Your task to perform on an android device: Set the phone to "Do not disturb". Image 0: 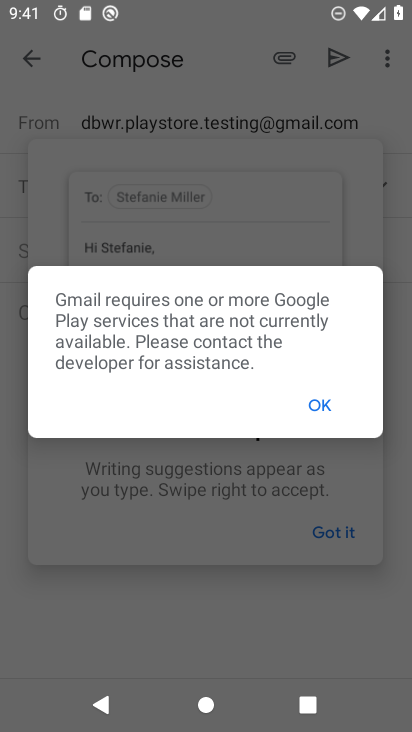
Step 0: press home button
Your task to perform on an android device: Set the phone to "Do not disturb". Image 1: 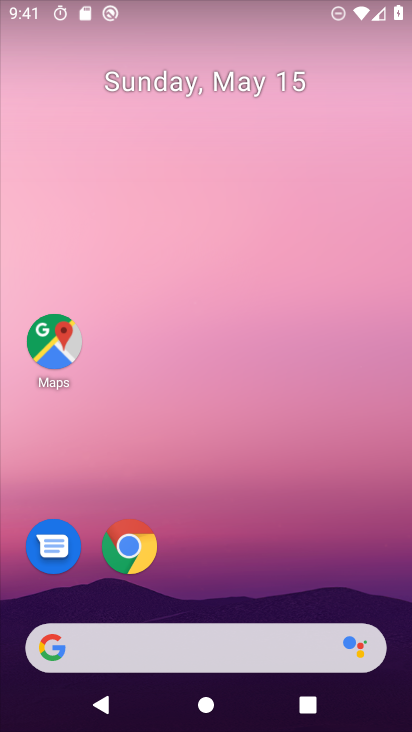
Step 1: drag from (250, 548) to (261, 52)
Your task to perform on an android device: Set the phone to "Do not disturb". Image 2: 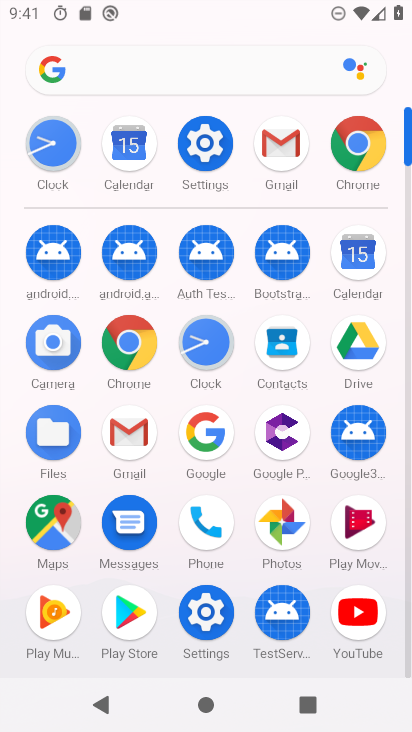
Step 2: click (207, 135)
Your task to perform on an android device: Set the phone to "Do not disturb". Image 3: 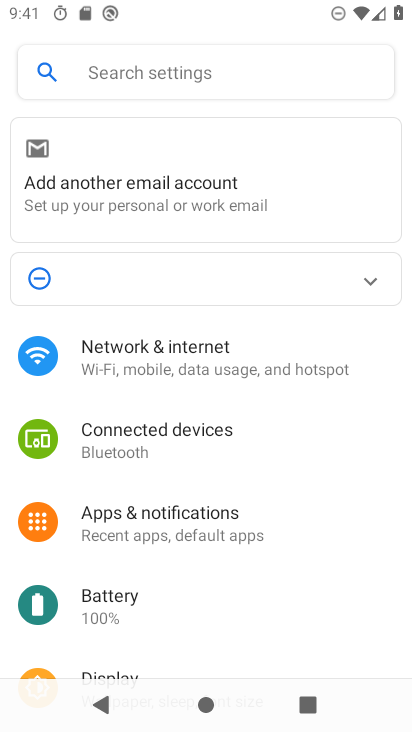
Step 3: drag from (208, 570) to (235, 136)
Your task to perform on an android device: Set the phone to "Do not disturb". Image 4: 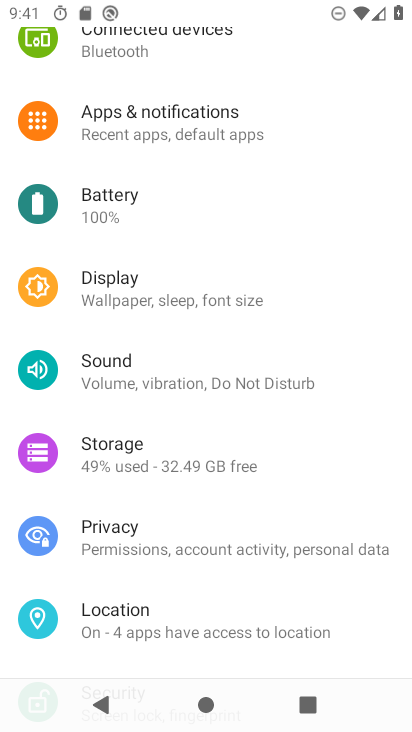
Step 4: click (209, 364)
Your task to perform on an android device: Set the phone to "Do not disturb". Image 5: 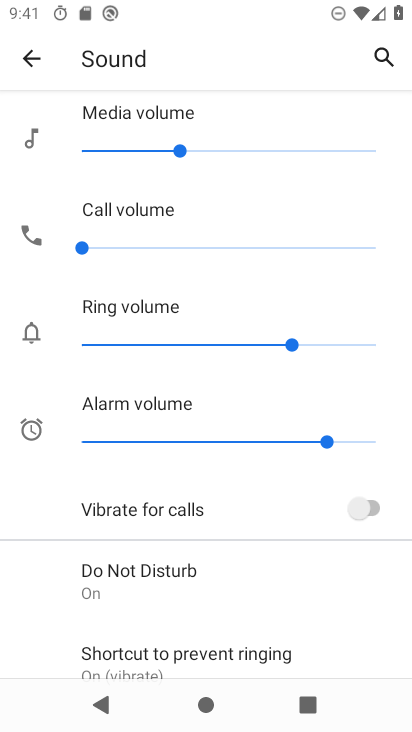
Step 5: task complete